Your task to perform on an android device: turn on airplane mode Image 0: 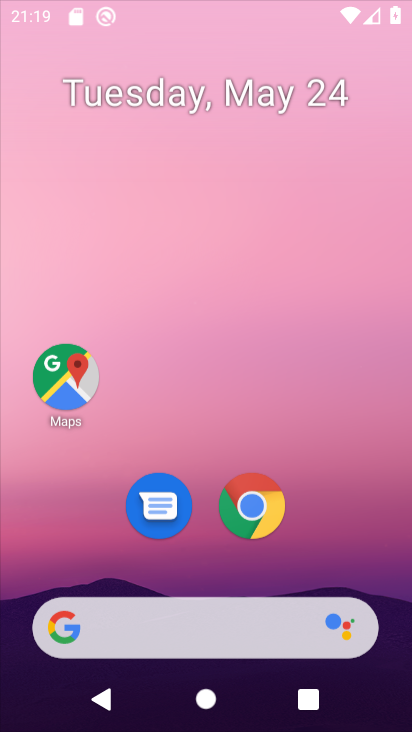
Step 0: click (318, 241)
Your task to perform on an android device: turn on airplane mode Image 1: 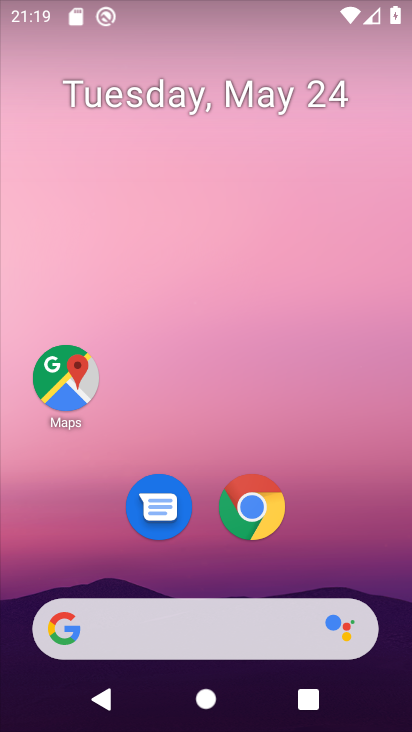
Step 1: drag from (221, 554) to (278, 201)
Your task to perform on an android device: turn on airplane mode Image 2: 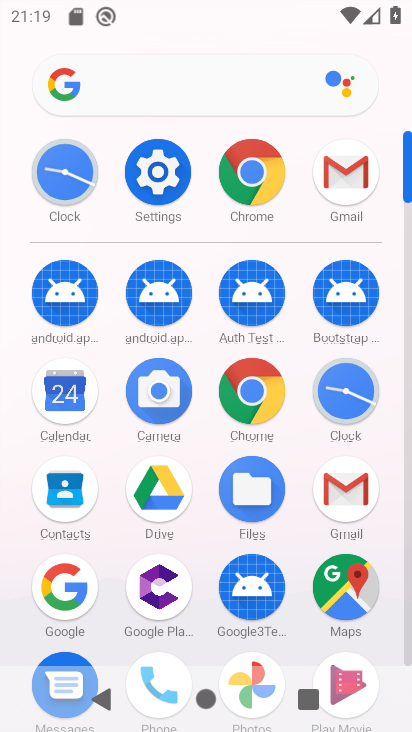
Step 2: click (167, 169)
Your task to perform on an android device: turn on airplane mode Image 3: 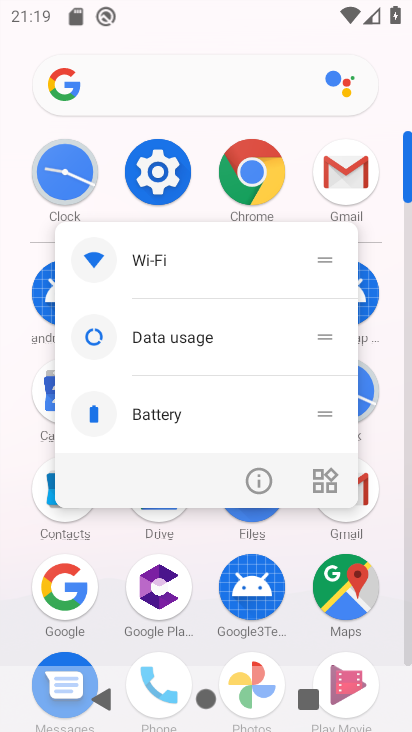
Step 3: click (247, 475)
Your task to perform on an android device: turn on airplane mode Image 4: 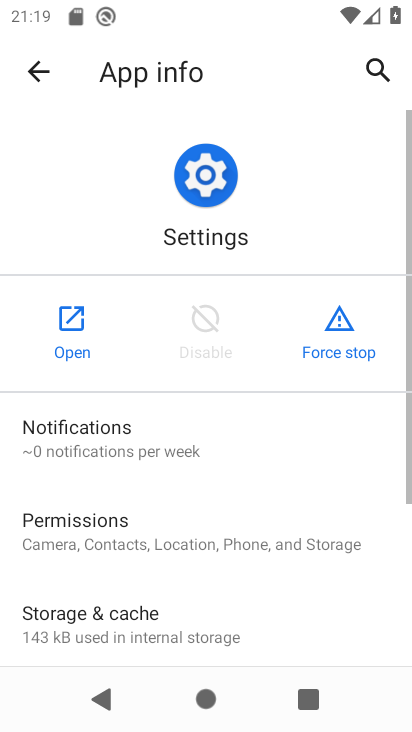
Step 4: click (77, 311)
Your task to perform on an android device: turn on airplane mode Image 5: 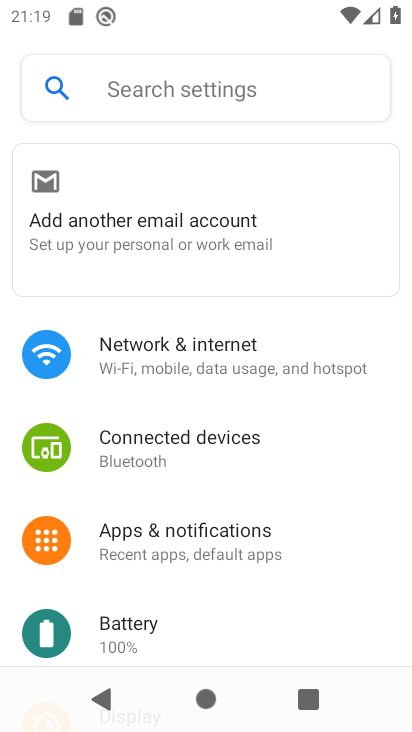
Step 5: drag from (214, 456) to (223, 316)
Your task to perform on an android device: turn on airplane mode Image 6: 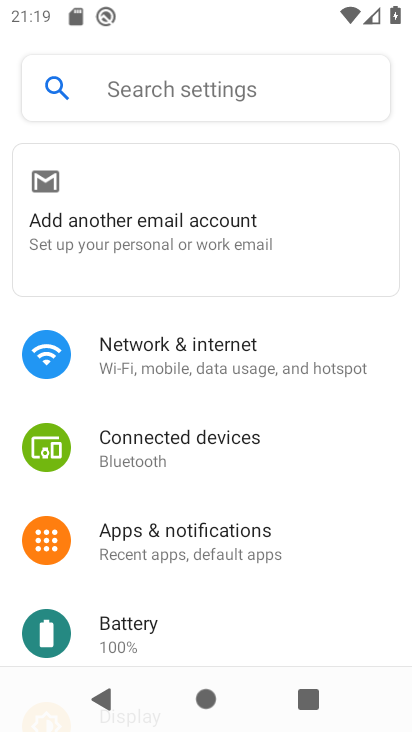
Step 6: drag from (197, 365) to (279, 78)
Your task to perform on an android device: turn on airplane mode Image 7: 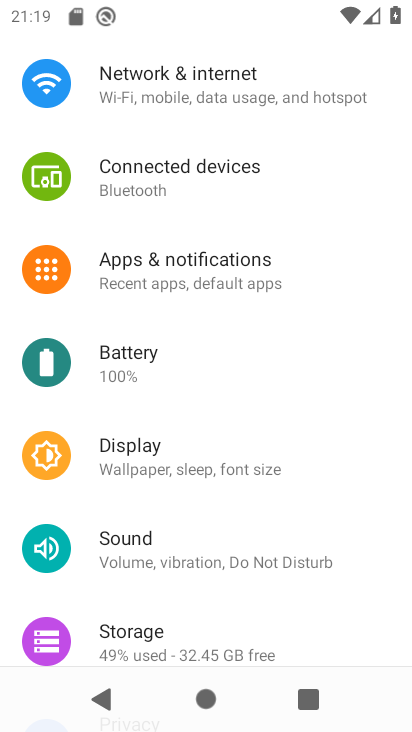
Step 7: click (205, 95)
Your task to perform on an android device: turn on airplane mode Image 8: 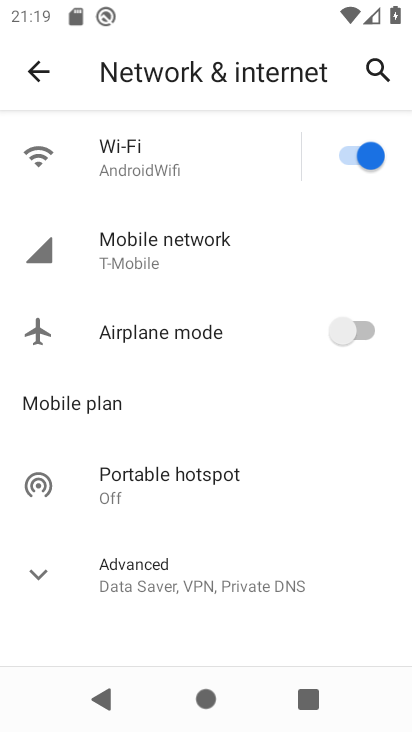
Step 8: drag from (185, 563) to (253, 228)
Your task to perform on an android device: turn on airplane mode Image 9: 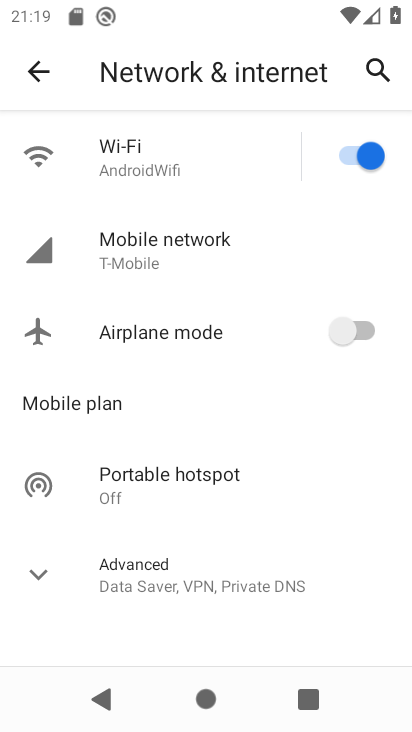
Step 9: click (206, 342)
Your task to perform on an android device: turn on airplane mode Image 10: 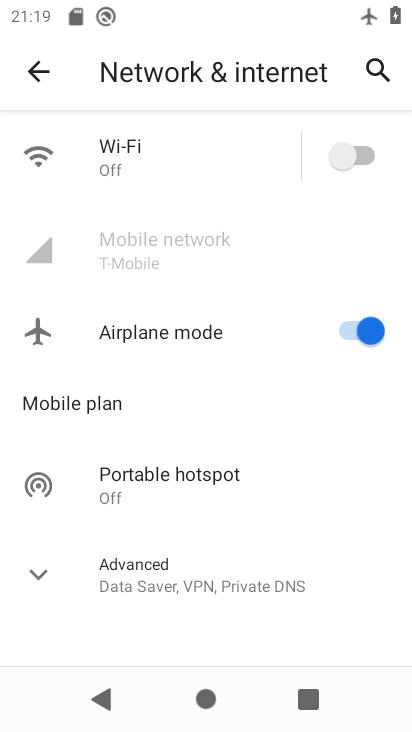
Step 10: task complete